Your task to perform on an android device: What's the weather going to be this weekend? Image 0: 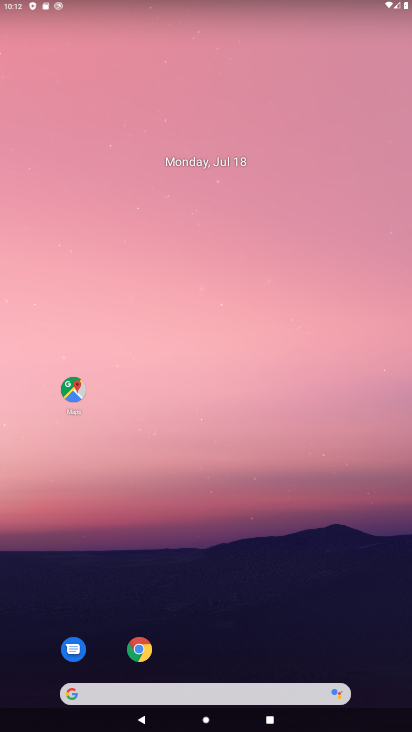
Step 0: drag from (2, 269) to (405, 241)
Your task to perform on an android device: What's the weather going to be this weekend? Image 1: 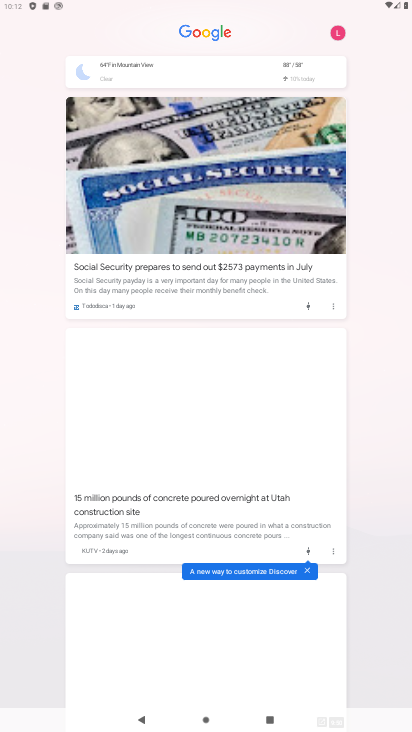
Step 1: click (265, 70)
Your task to perform on an android device: What's the weather going to be this weekend? Image 2: 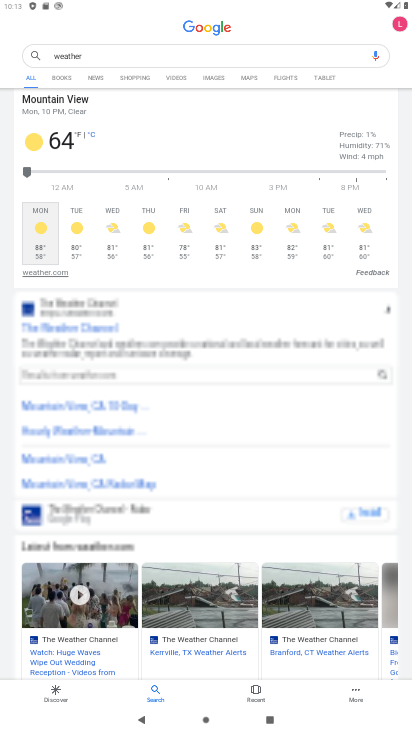
Step 2: click (107, 326)
Your task to perform on an android device: What's the weather going to be this weekend? Image 3: 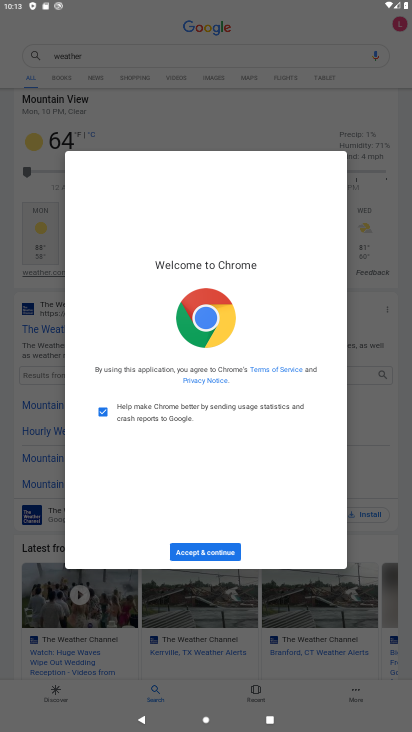
Step 3: click (221, 558)
Your task to perform on an android device: What's the weather going to be this weekend? Image 4: 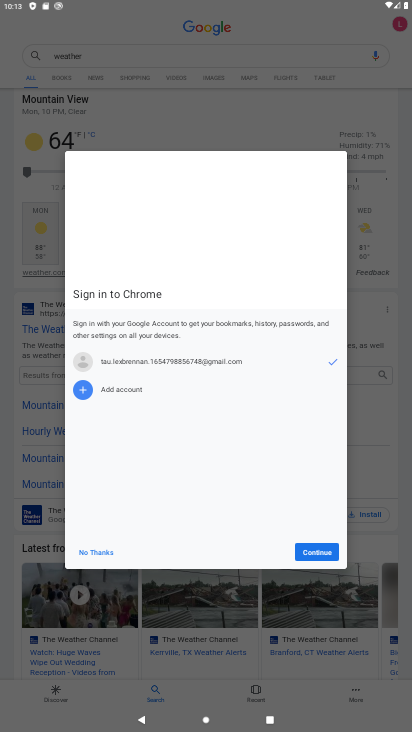
Step 4: click (320, 544)
Your task to perform on an android device: What's the weather going to be this weekend? Image 5: 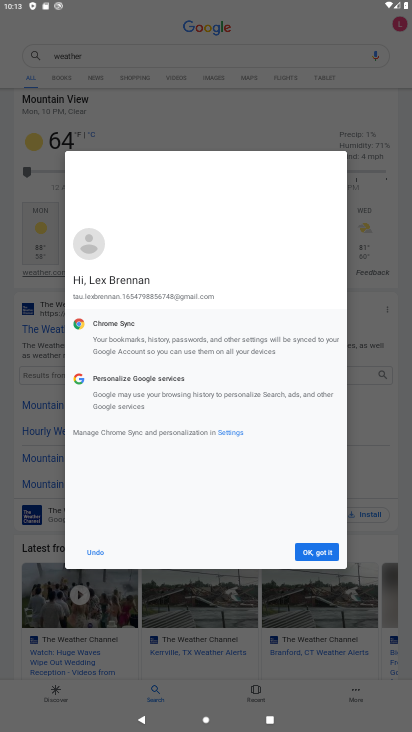
Step 5: click (323, 544)
Your task to perform on an android device: What's the weather going to be this weekend? Image 6: 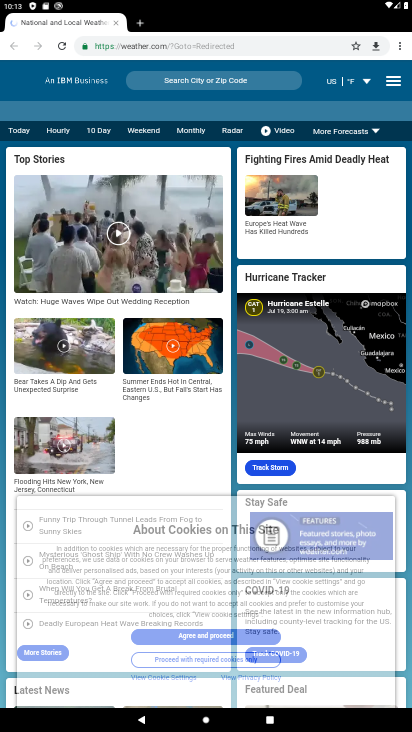
Step 6: click (145, 131)
Your task to perform on an android device: What's the weather going to be this weekend? Image 7: 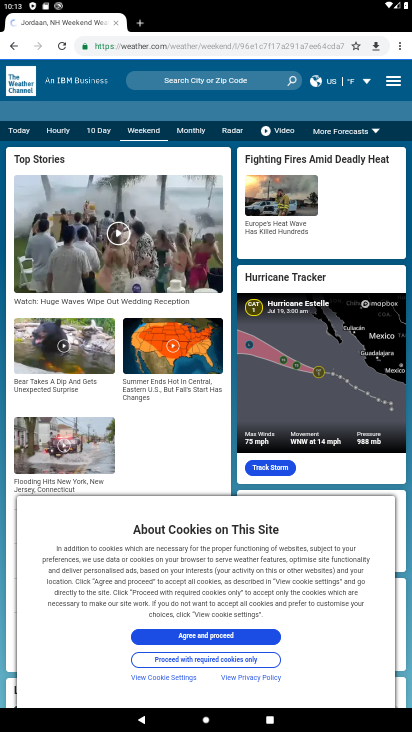
Step 7: click (225, 633)
Your task to perform on an android device: What's the weather going to be this weekend? Image 8: 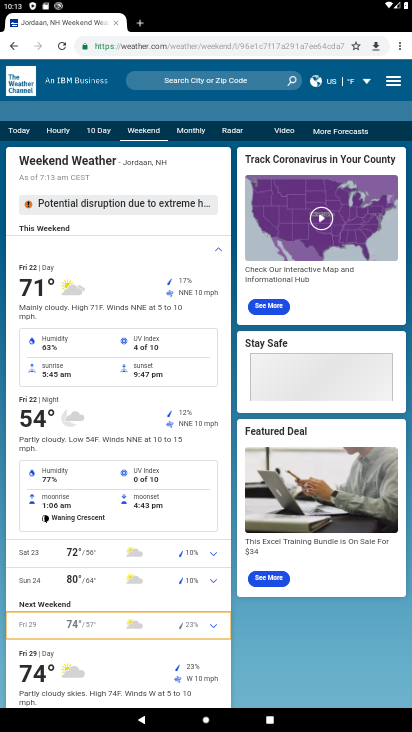
Step 8: task complete